Your task to perform on an android device: Open Amazon Image 0: 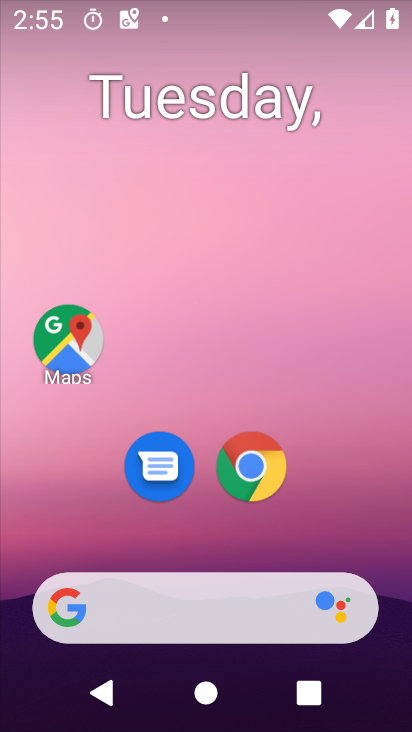
Step 0: drag from (375, 537) to (356, 165)
Your task to perform on an android device: Open Amazon Image 1: 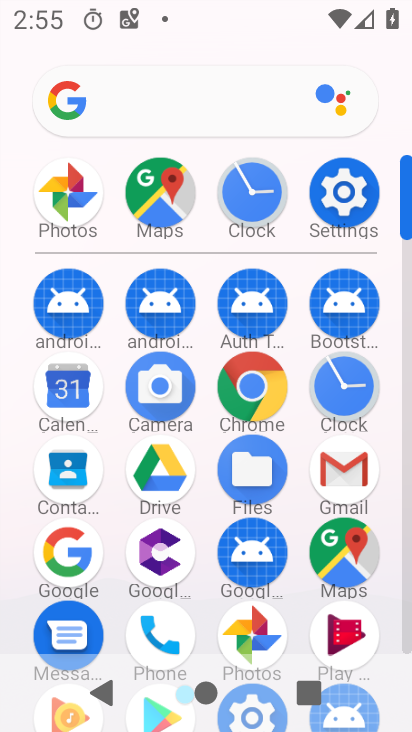
Step 1: click (265, 402)
Your task to perform on an android device: Open Amazon Image 2: 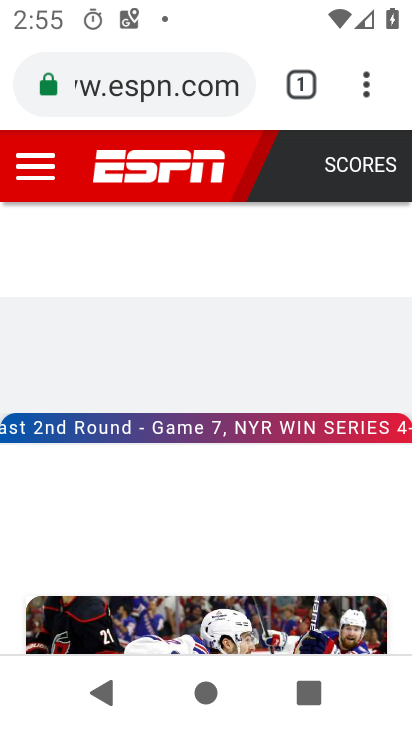
Step 2: click (200, 83)
Your task to perform on an android device: Open Amazon Image 3: 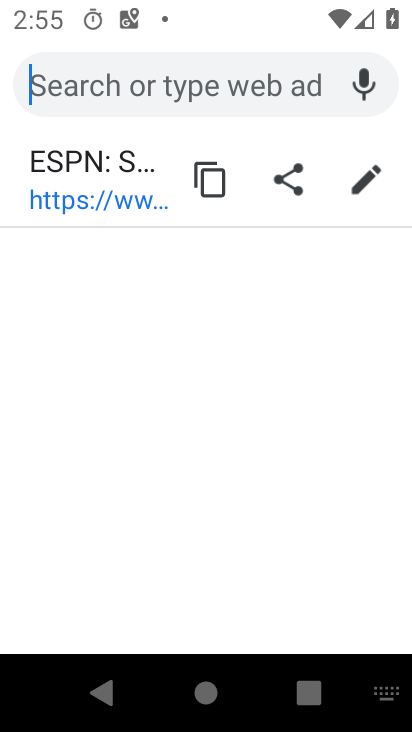
Step 3: type "amzon"
Your task to perform on an android device: Open Amazon Image 4: 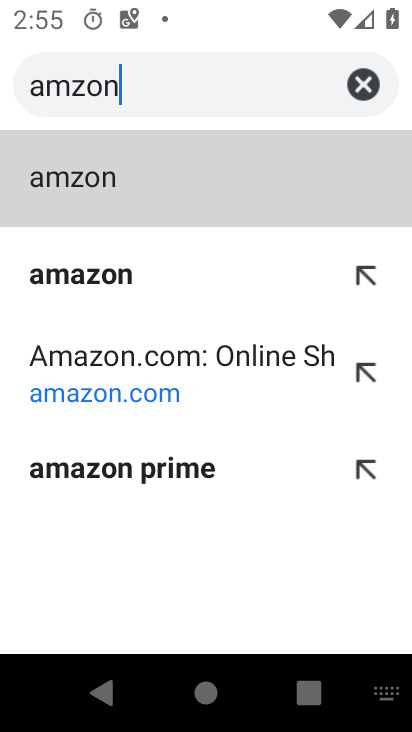
Step 4: click (205, 191)
Your task to perform on an android device: Open Amazon Image 5: 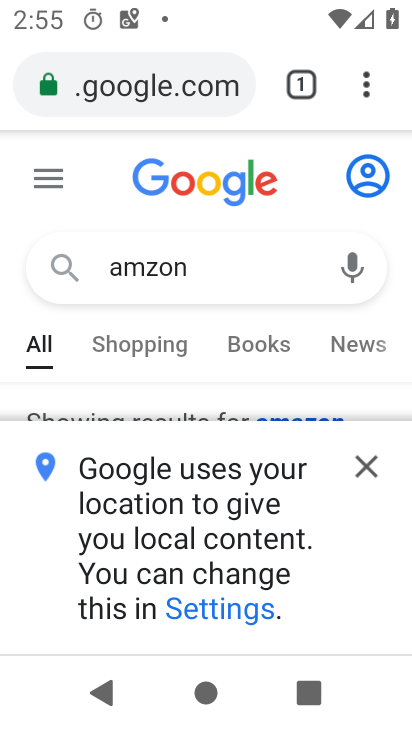
Step 5: task complete